Your task to perform on an android device: Open Chrome and go to settings Image 0: 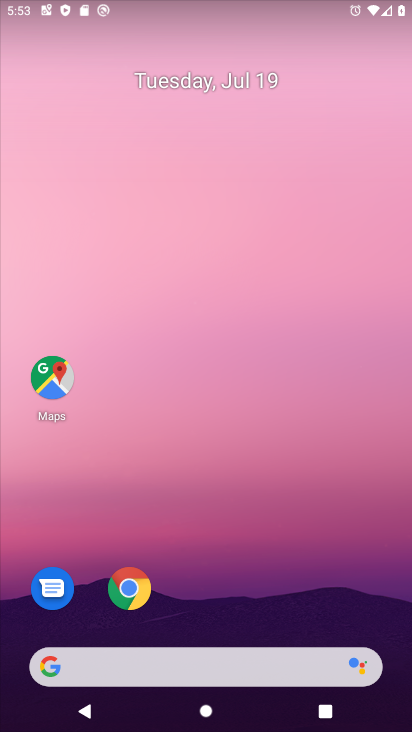
Step 0: click (122, 583)
Your task to perform on an android device: Open Chrome and go to settings Image 1: 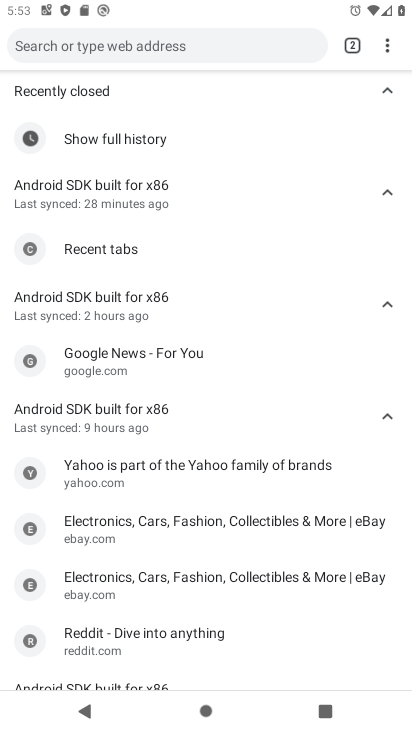
Step 1: click (361, 49)
Your task to perform on an android device: Open Chrome and go to settings Image 2: 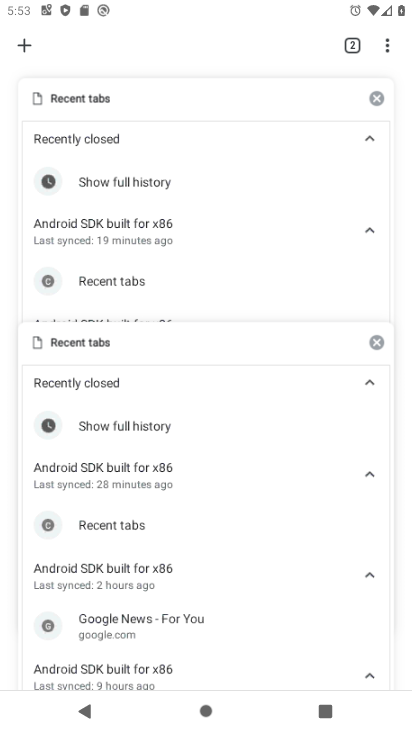
Step 2: click (18, 58)
Your task to perform on an android device: Open Chrome and go to settings Image 3: 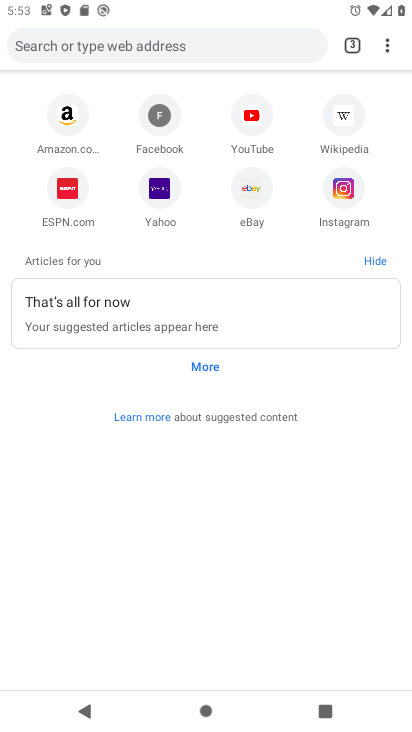
Step 3: task complete